Your task to perform on an android device: turn on data saver in the chrome app Image 0: 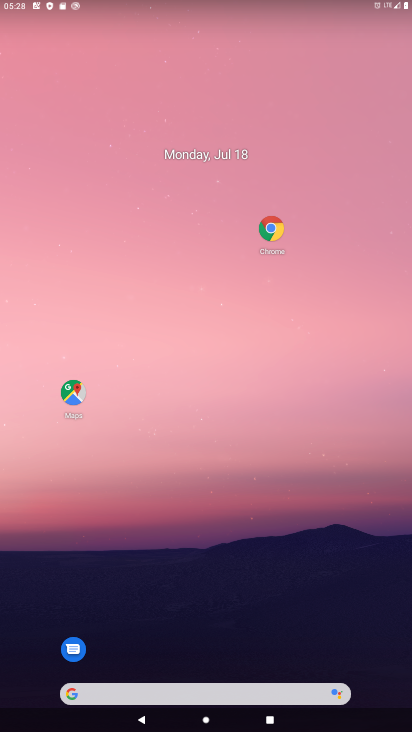
Step 0: click (270, 235)
Your task to perform on an android device: turn on data saver in the chrome app Image 1: 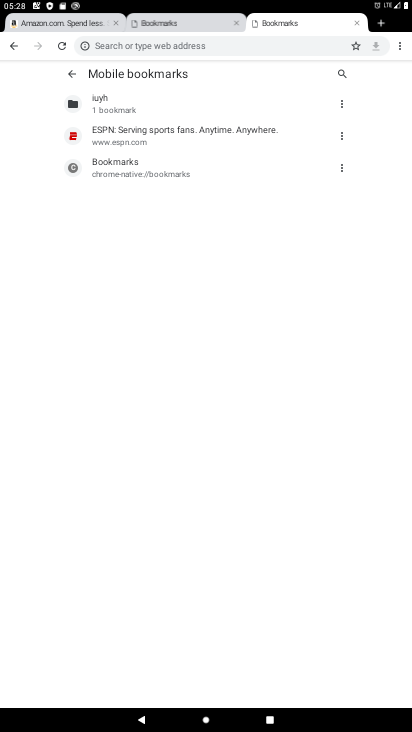
Step 1: task complete